Your task to perform on an android device: turn off smart reply in the gmail app Image 0: 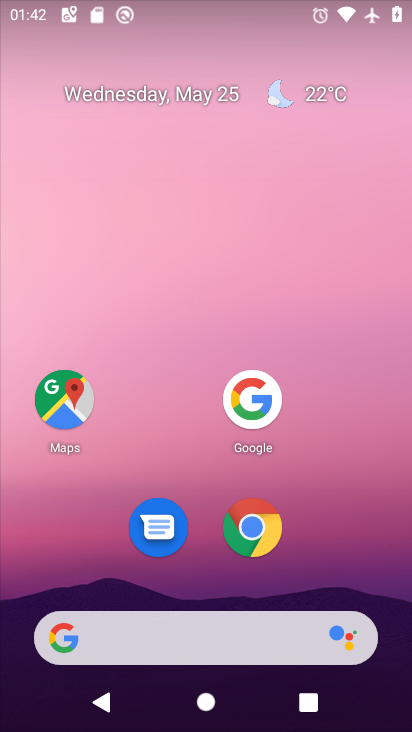
Step 0: press home button
Your task to perform on an android device: turn off smart reply in the gmail app Image 1: 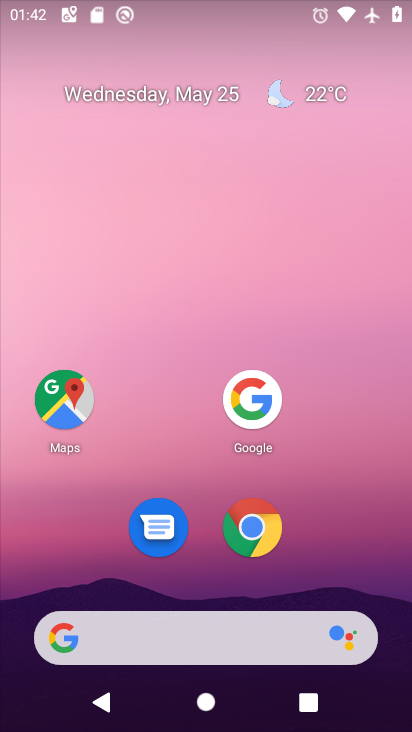
Step 1: drag from (133, 652) to (319, 151)
Your task to perform on an android device: turn off smart reply in the gmail app Image 2: 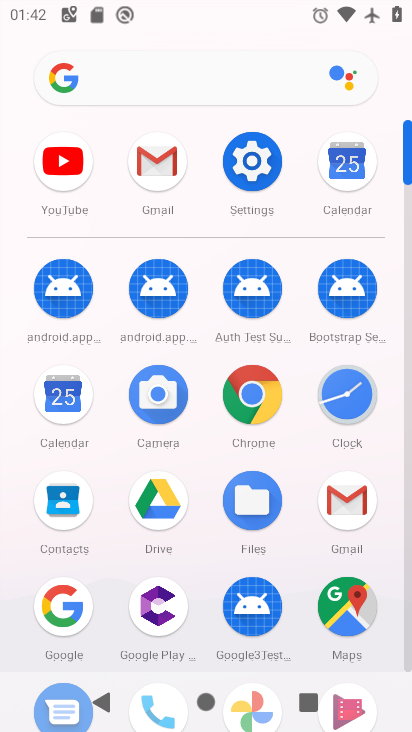
Step 2: click (344, 520)
Your task to perform on an android device: turn off smart reply in the gmail app Image 3: 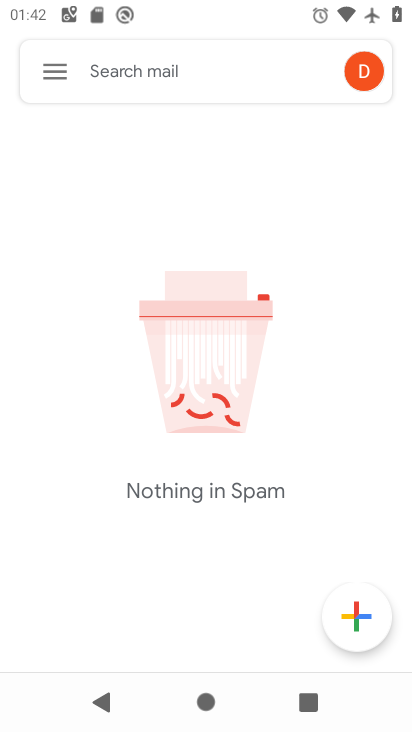
Step 3: click (64, 65)
Your task to perform on an android device: turn off smart reply in the gmail app Image 4: 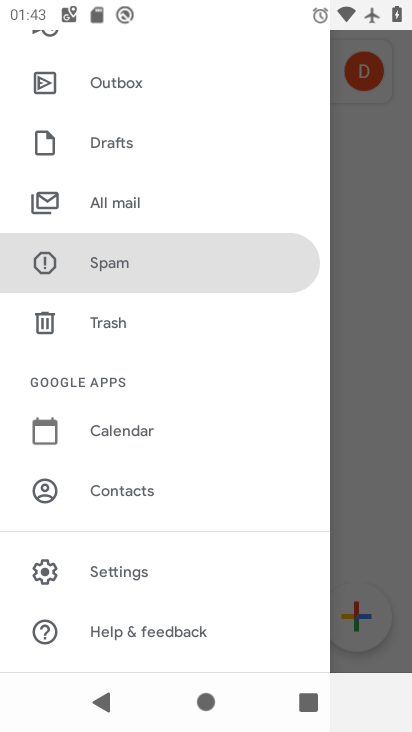
Step 4: drag from (175, 556) to (248, 295)
Your task to perform on an android device: turn off smart reply in the gmail app Image 5: 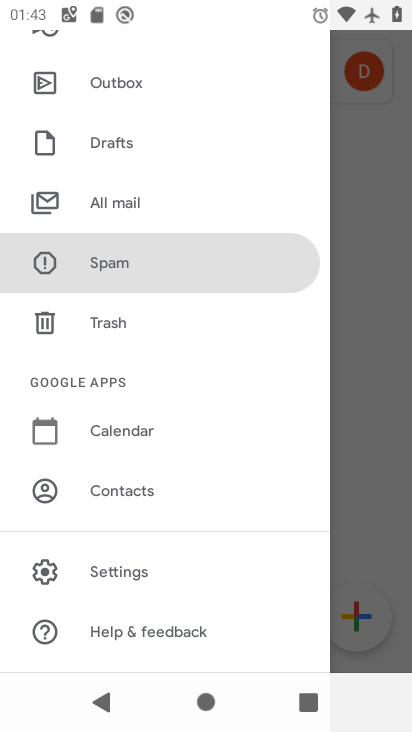
Step 5: click (131, 572)
Your task to perform on an android device: turn off smart reply in the gmail app Image 6: 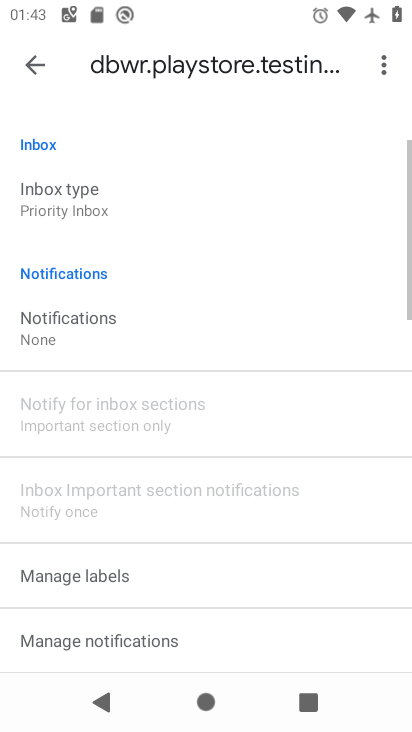
Step 6: task complete